Your task to perform on an android device: turn on improve location accuracy Image 0: 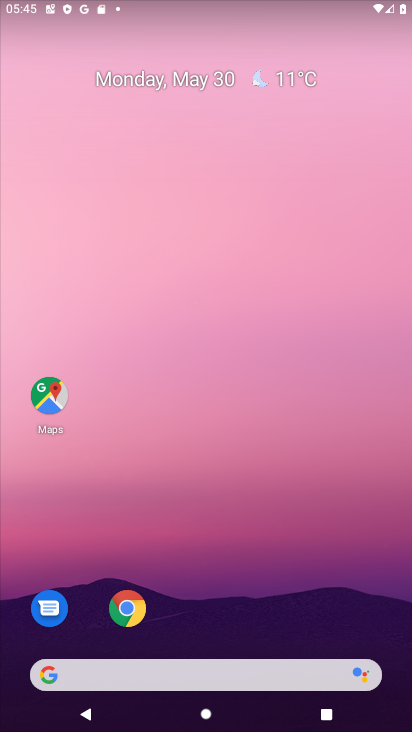
Step 0: drag from (228, 648) to (194, 258)
Your task to perform on an android device: turn on improve location accuracy Image 1: 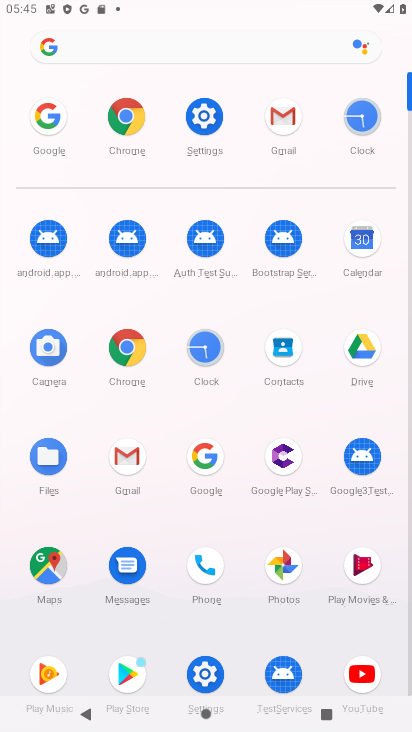
Step 1: click (194, 125)
Your task to perform on an android device: turn on improve location accuracy Image 2: 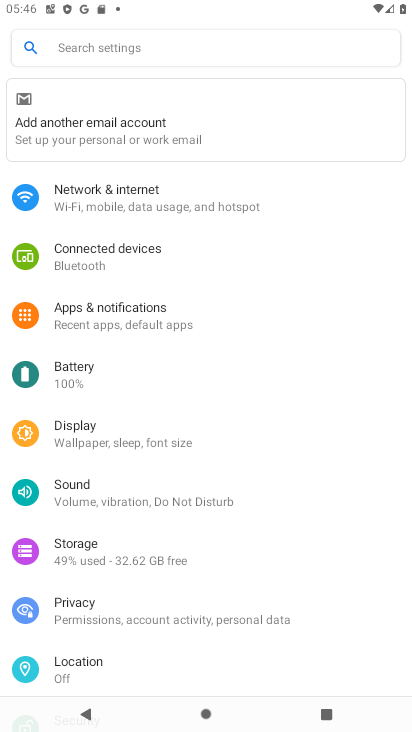
Step 2: click (76, 668)
Your task to perform on an android device: turn on improve location accuracy Image 3: 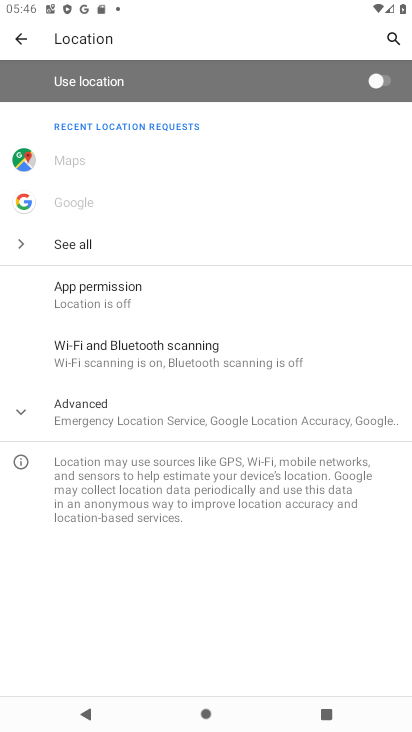
Step 3: click (86, 404)
Your task to perform on an android device: turn on improve location accuracy Image 4: 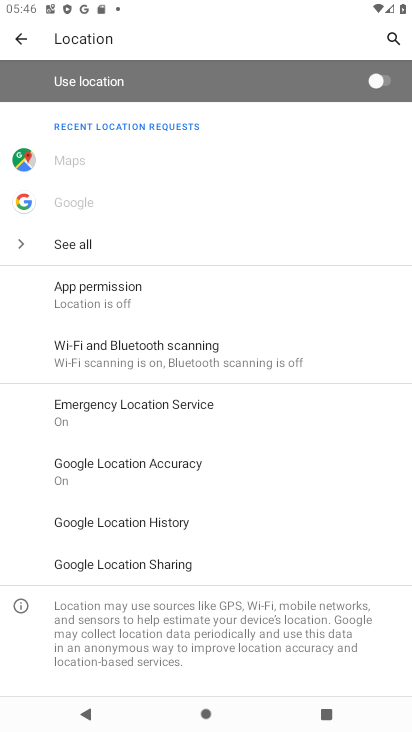
Step 4: click (163, 486)
Your task to perform on an android device: turn on improve location accuracy Image 5: 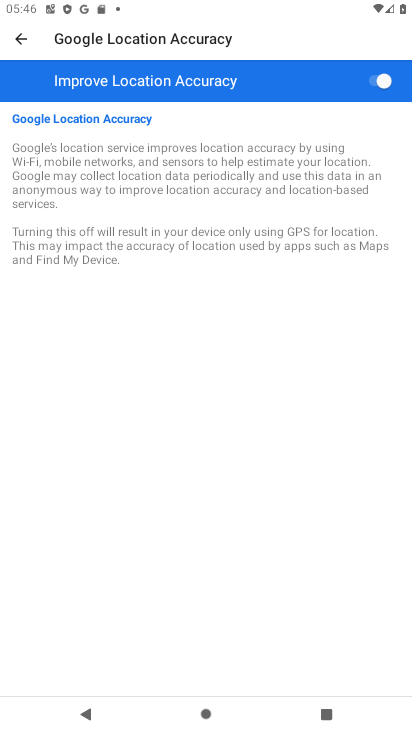
Step 5: task complete